Your task to perform on an android device: set the stopwatch Image 0: 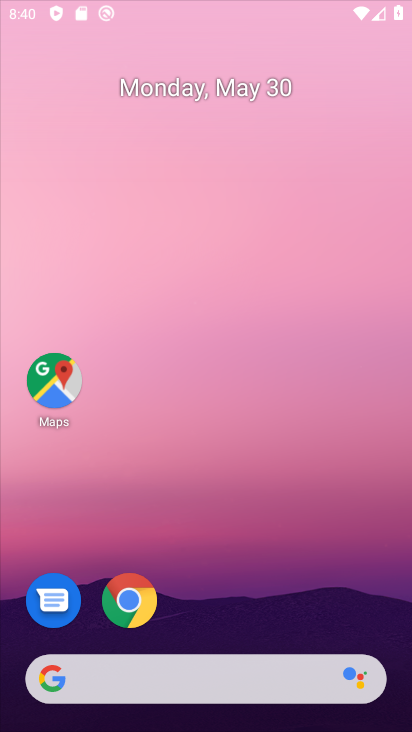
Step 0: click (234, 47)
Your task to perform on an android device: set the stopwatch Image 1: 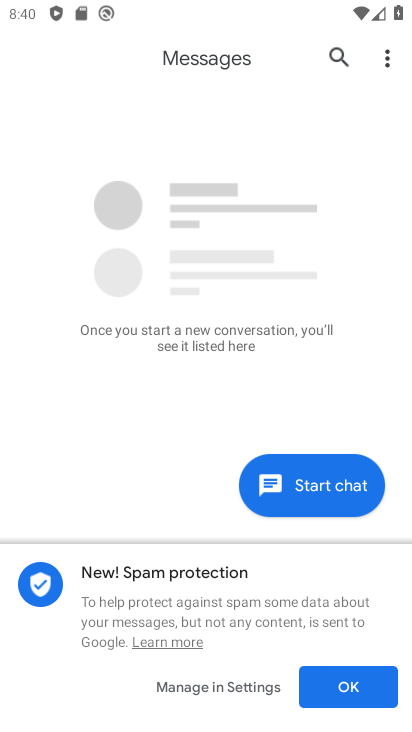
Step 1: press back button
Your task to perform on an android device: set the stopwatch Image 2: 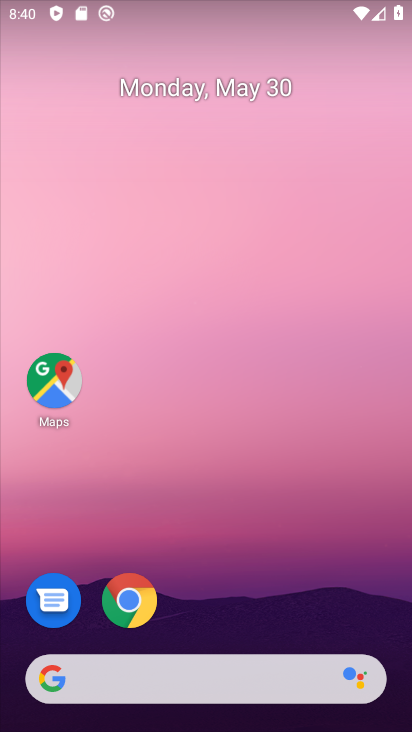
Step 2: drag from (244, 489) to (172, 11)
Your task to perform on an android device: set the stopwatch Image 3: 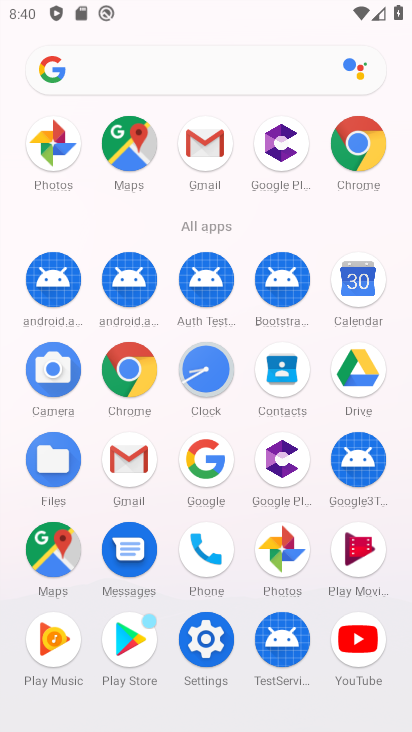
Step 3: click (205, 364)
Your task to perform on an android device: set the stopwatch Image 4: 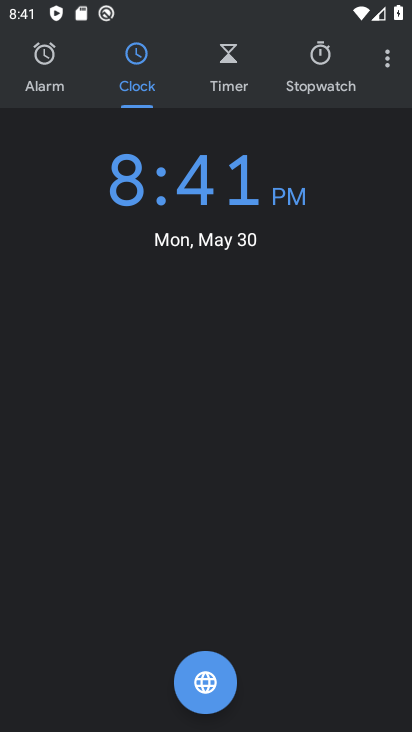
Step 4: click (323, 60)
Your task to perform on an android device: set the stopwatch Image 5: 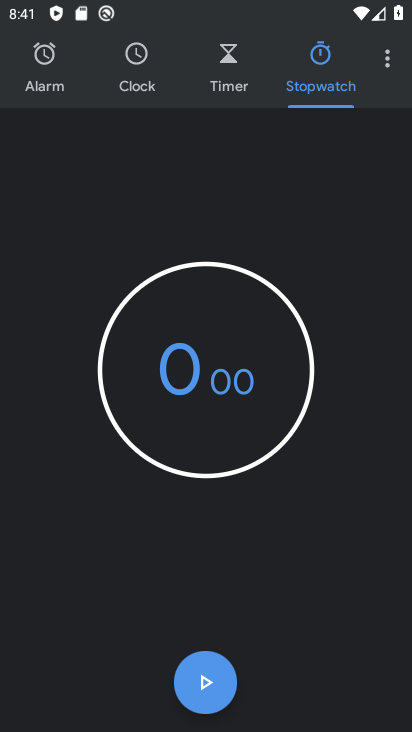
Step 5: click (217, 689)
Your task to perform on an android device: set the stopwatch Image 6: 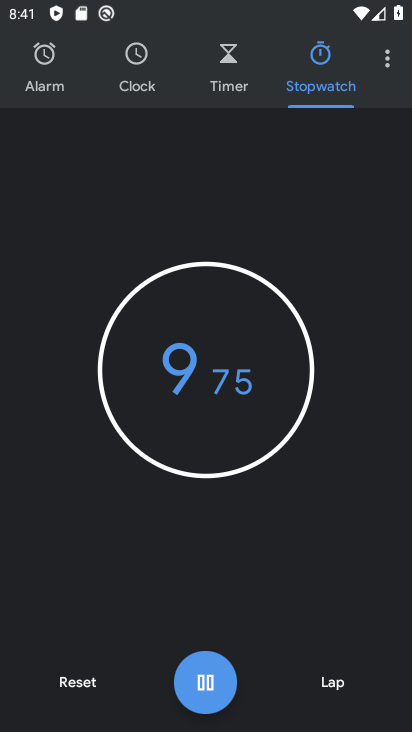
Step 6: task complete